Your task to perform on an android device: refresh tabs in the chrome app Image 0: 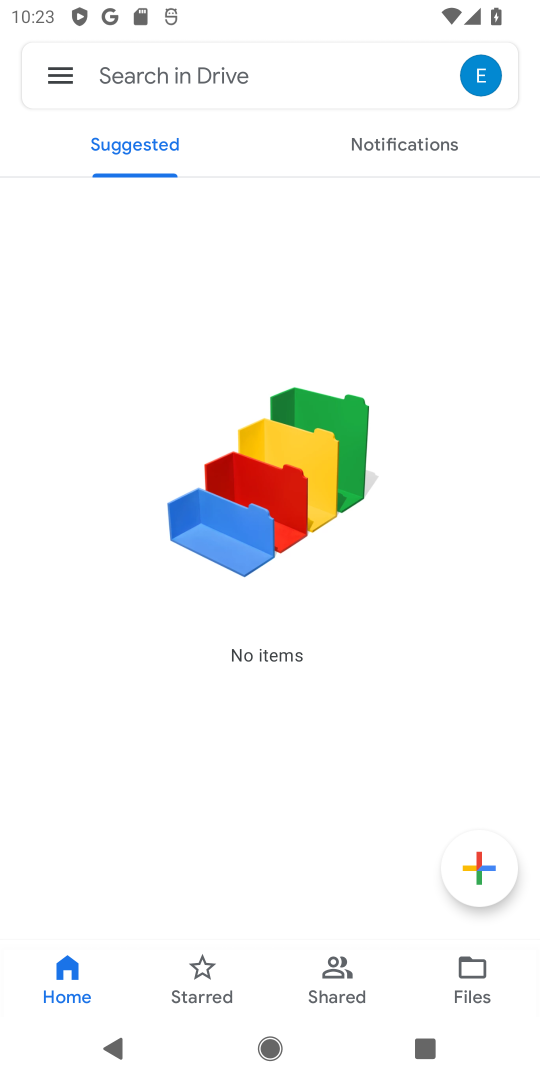
Step 0: press home button
Your task to perform on an android device: refresh tabs in the chrome app Image 1: 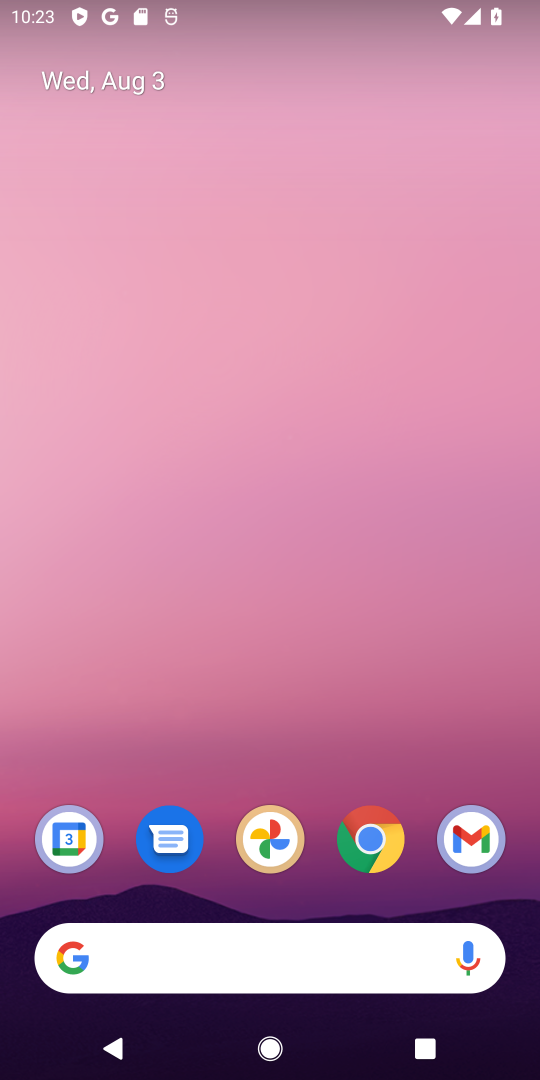
Step 1: click (382, 838)
Your task to perform on an android device: refresh tabs in the chrome app Image 2: 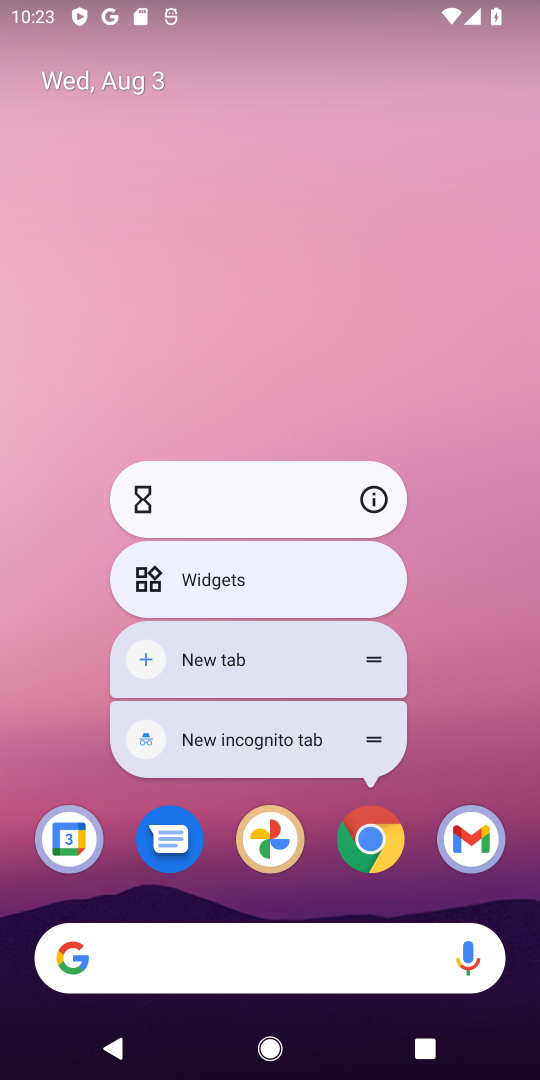
Step 2: click (370, 839)
Your task to perform on an android device: refresh tabs in the chrome app Image 3: 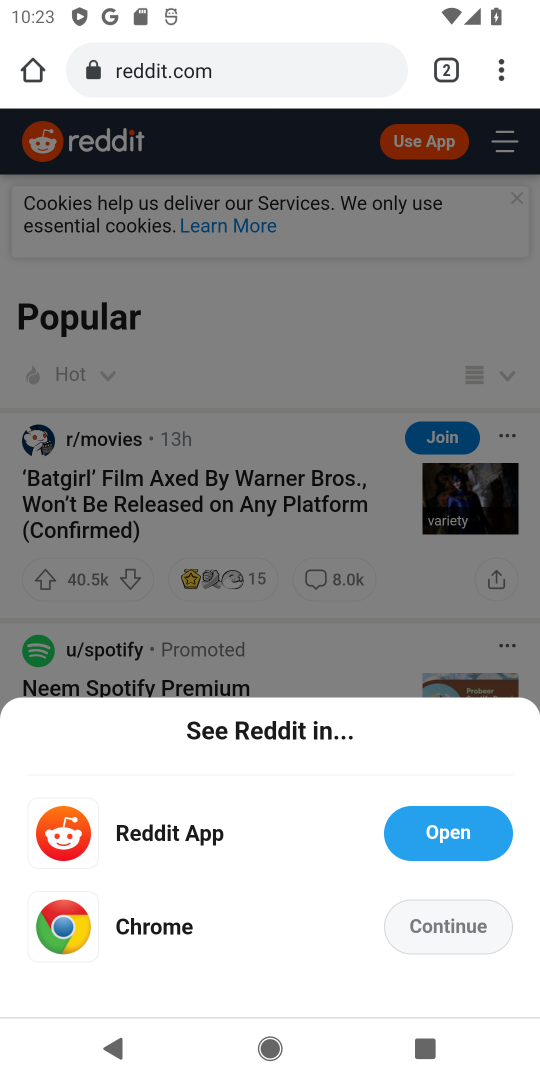
Step 3: click (500, 64)
Your task to perform on an android device: refresh tabs in the chrome app Image 4: 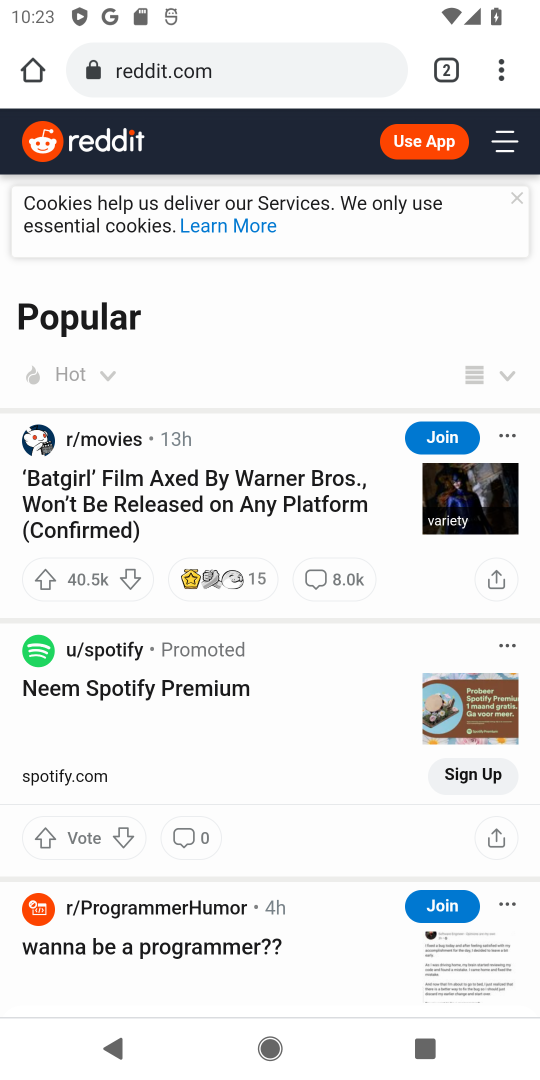
Step 4: click (498, 66)
Your task to perform on an android device: refresh tabs in the chrome app Image 5: 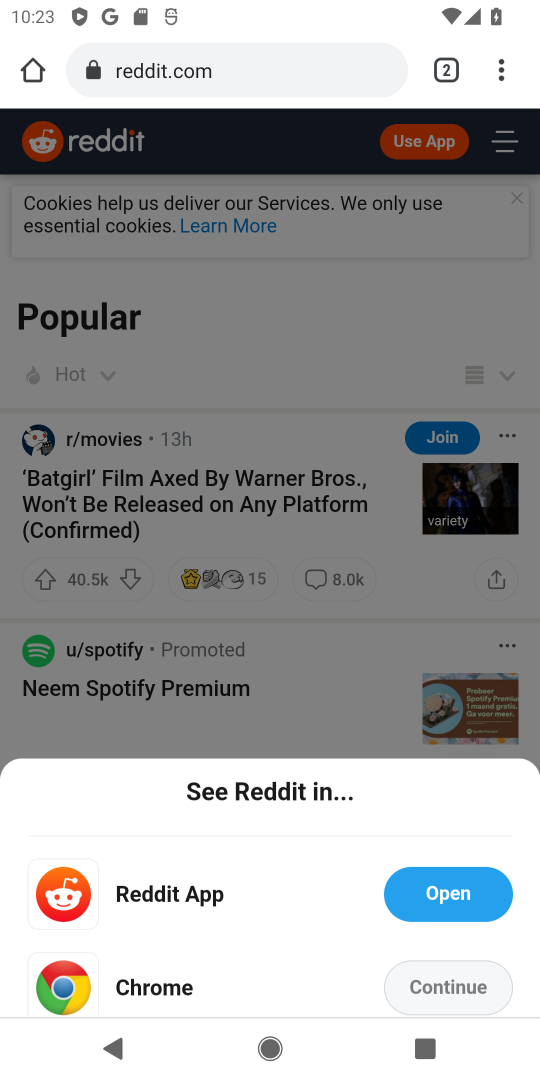
Step 5: click (491, 76)
Your task to perform on an android device: refresh tabs in the chrome app Image 6: 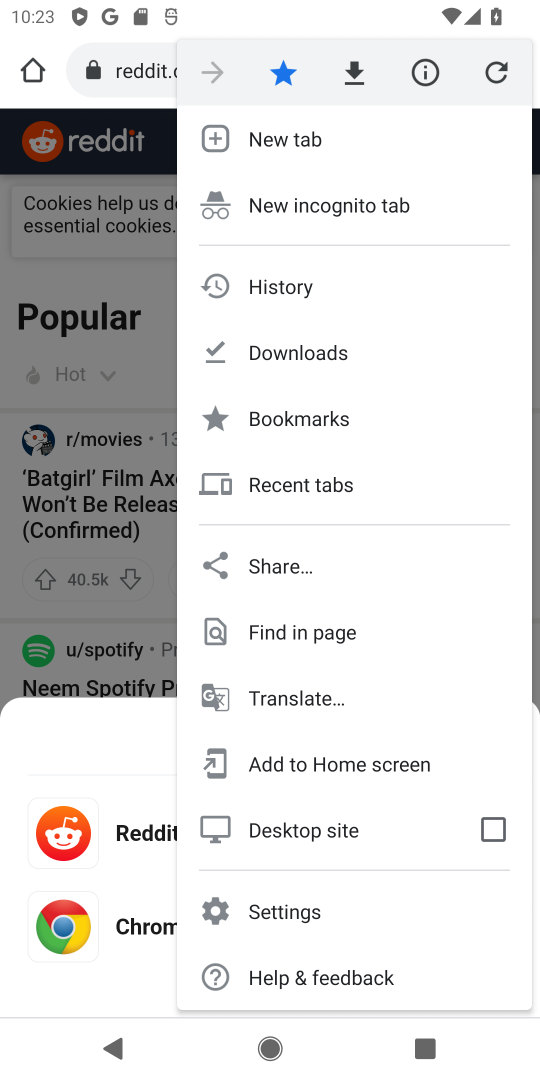
Step 6: click (487, 73)
Your task to perform on an android device: refresh tabs in the chrome app Image 7: 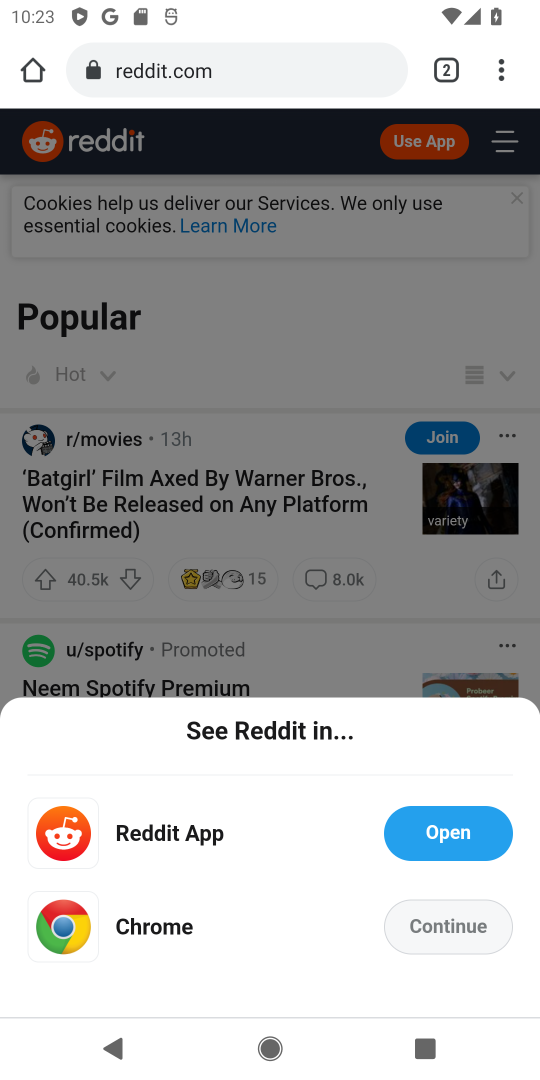
Step 7: task complete